Your task to perform on an android device: Open the stopwatch Image 0: 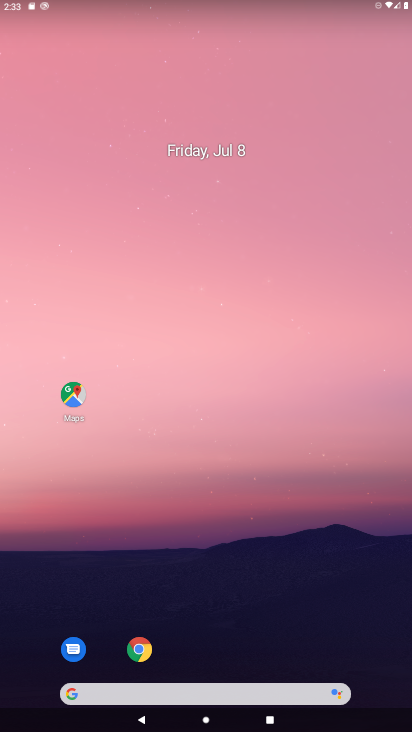
Step 0: drag from (350, 635) to (282, 50)
Your task to perform on an android device: Open the stopwatch Image 1: 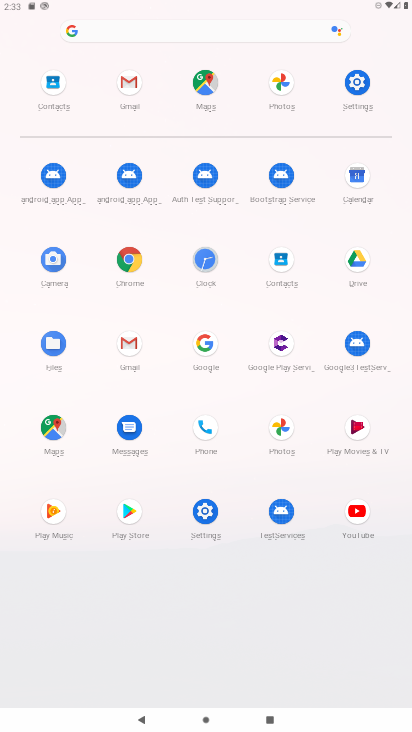
Step 1: click (204, 259)
Your task to perform on an android device: Open the stopwatch Image 2: 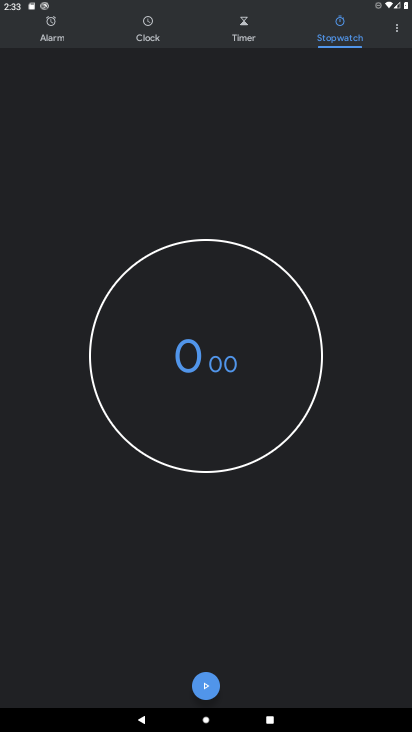
Step 2: task complete